Your task to perform on an android device: Open network settings Image 0: 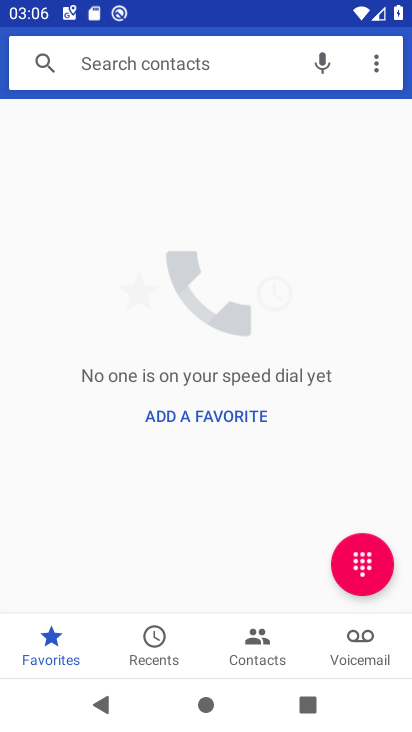
Step 0: press home button
Your task to perform on an android device: Open network settings Image 1: 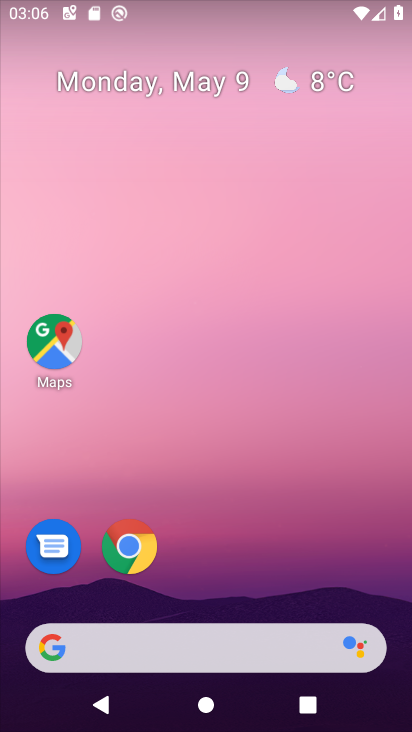
Step 1: drag from (229, 571) to (234, 14)
Your task to perform on an android device: Open network settings Image 2: 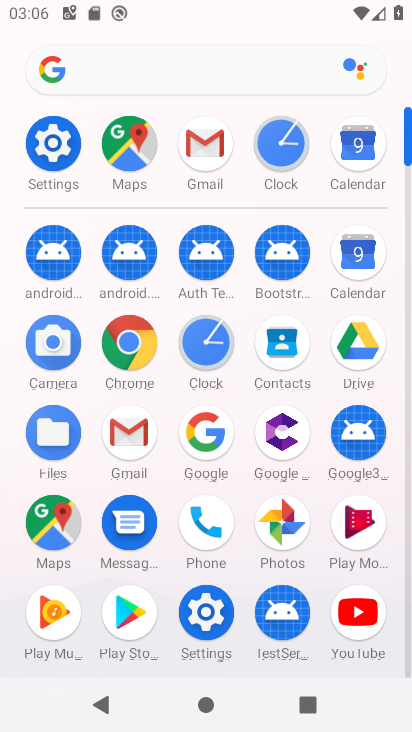
Step 2: click (54, 131)
Your task to perform on an android device: Open network settings Image 3: 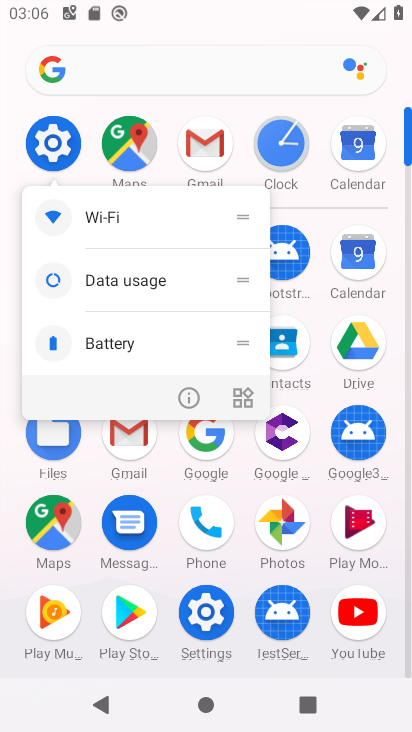
Step 3: click (54, 132)
Your task to perform on an android device: Open network settings Image 4: 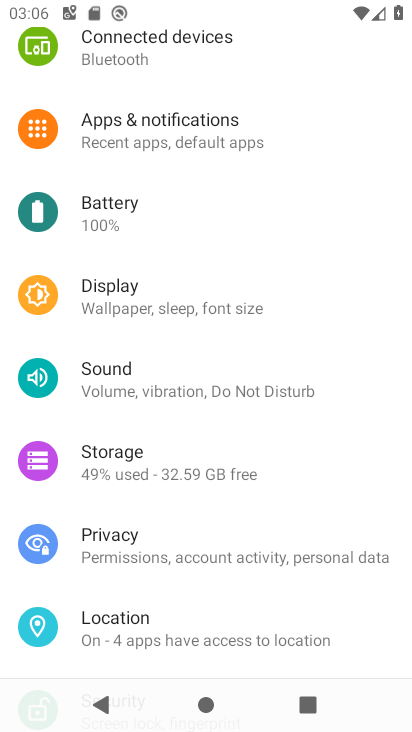
Step 4: drag from (213, 221) to (343, 577)
Your task to perform on an android device: Open network settings Image 5: 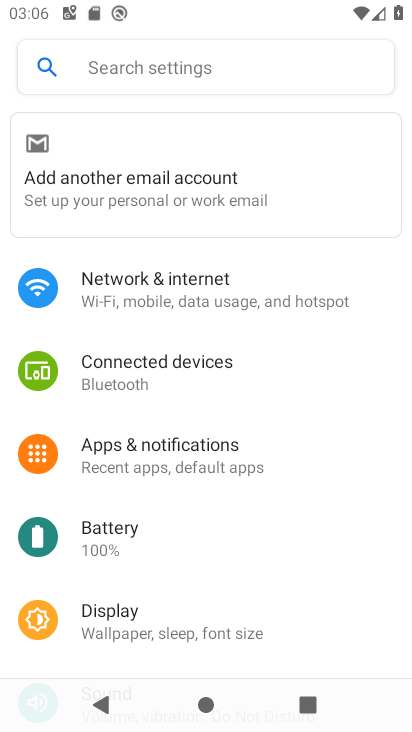
Step 5: click (237, 293)
Your task to perform on an android device: Open network settings Image 6: 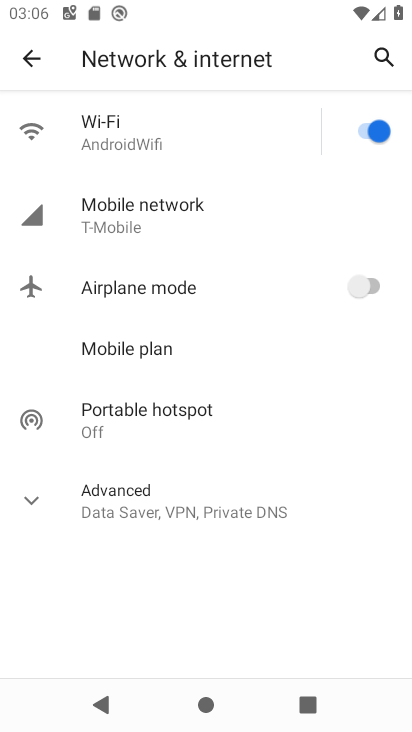
Step 6: task complete